Your task to perform on an android device: Search for panasonic triple a on amazon, select the first entry, and add it to the cart. Image 0: 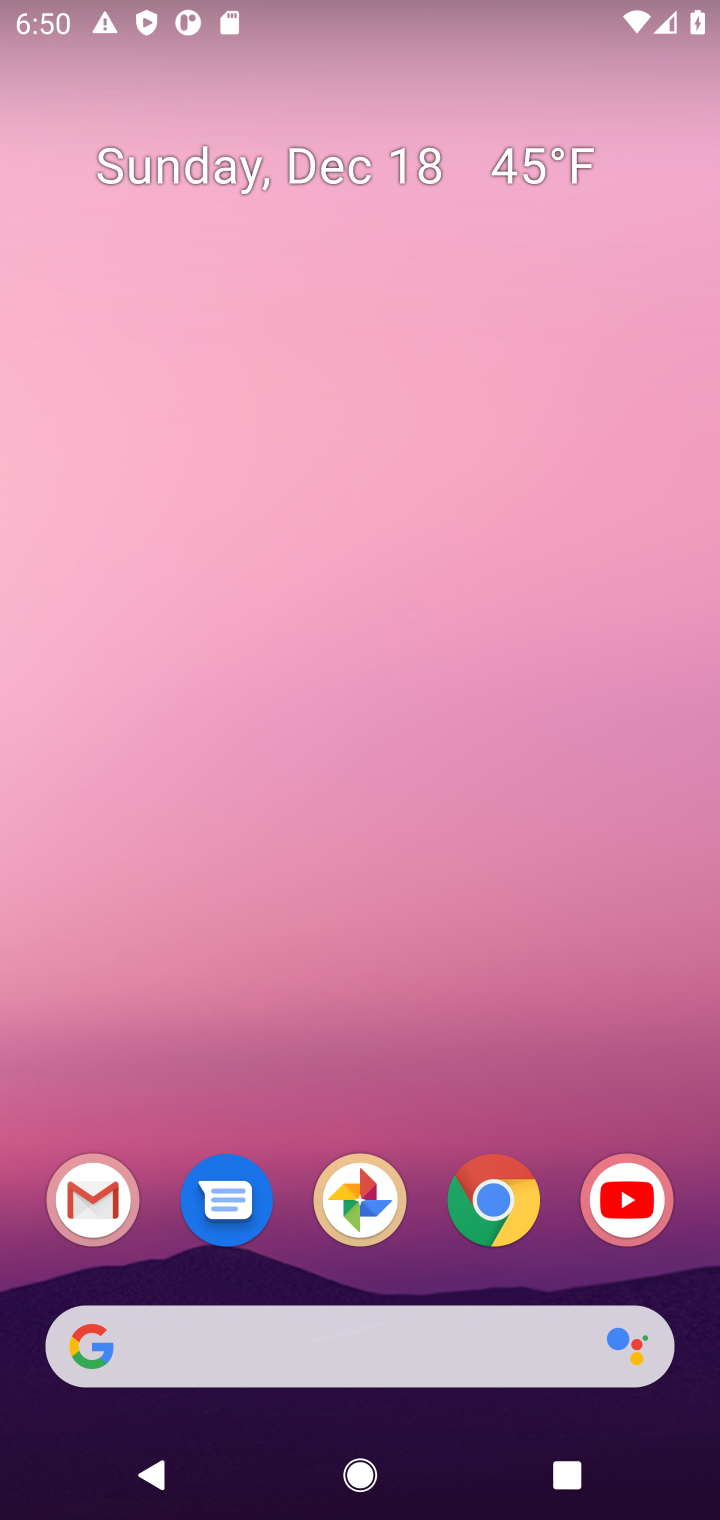
Step 0: click (503, 1210)
Your task to perform on an android device: Search for panasonic triple a on amazon, select the first entry, and add it to the cart. Image 1: 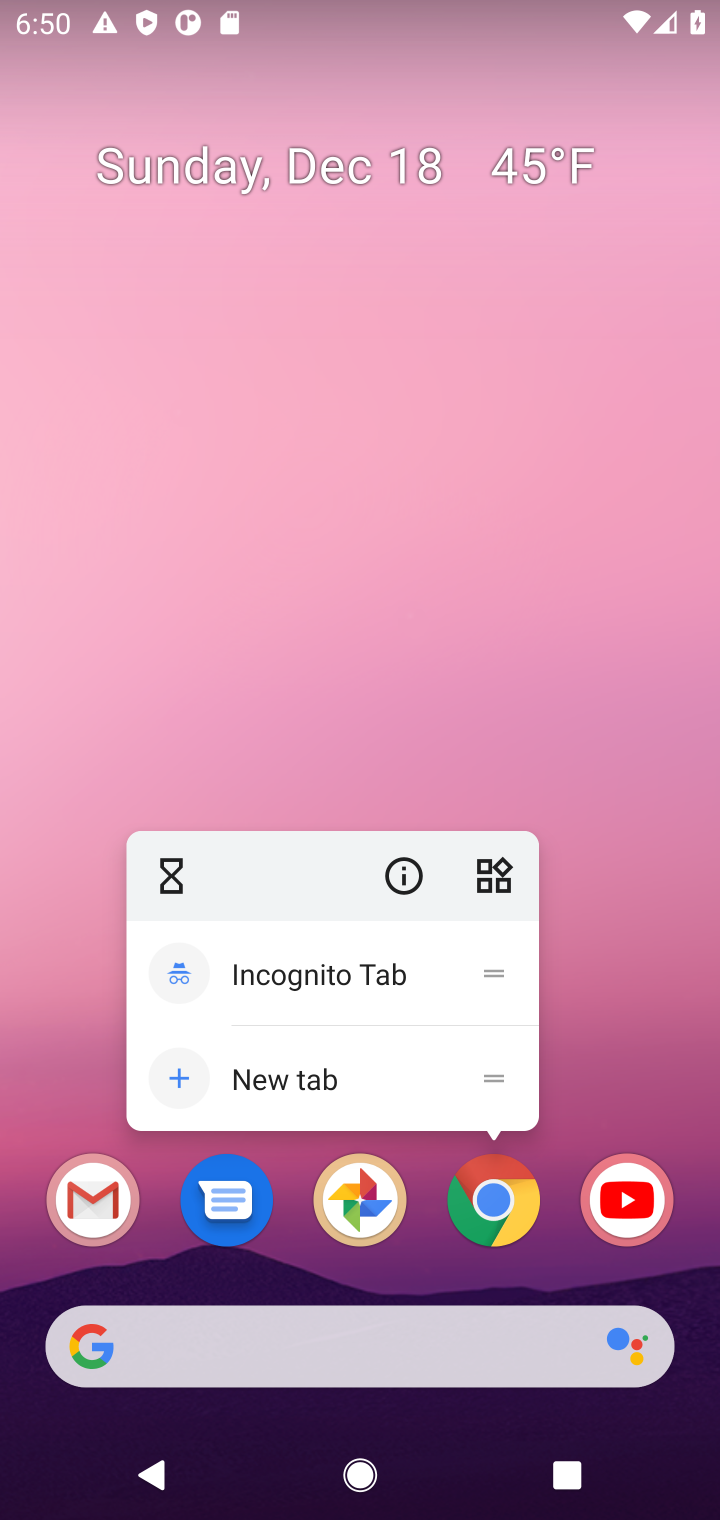
Step 1: click (486, 1216)
Your task to perform on an android device: Search for panasonic triple a on amazon, select the first entry, and add it to the cart. Image 2: 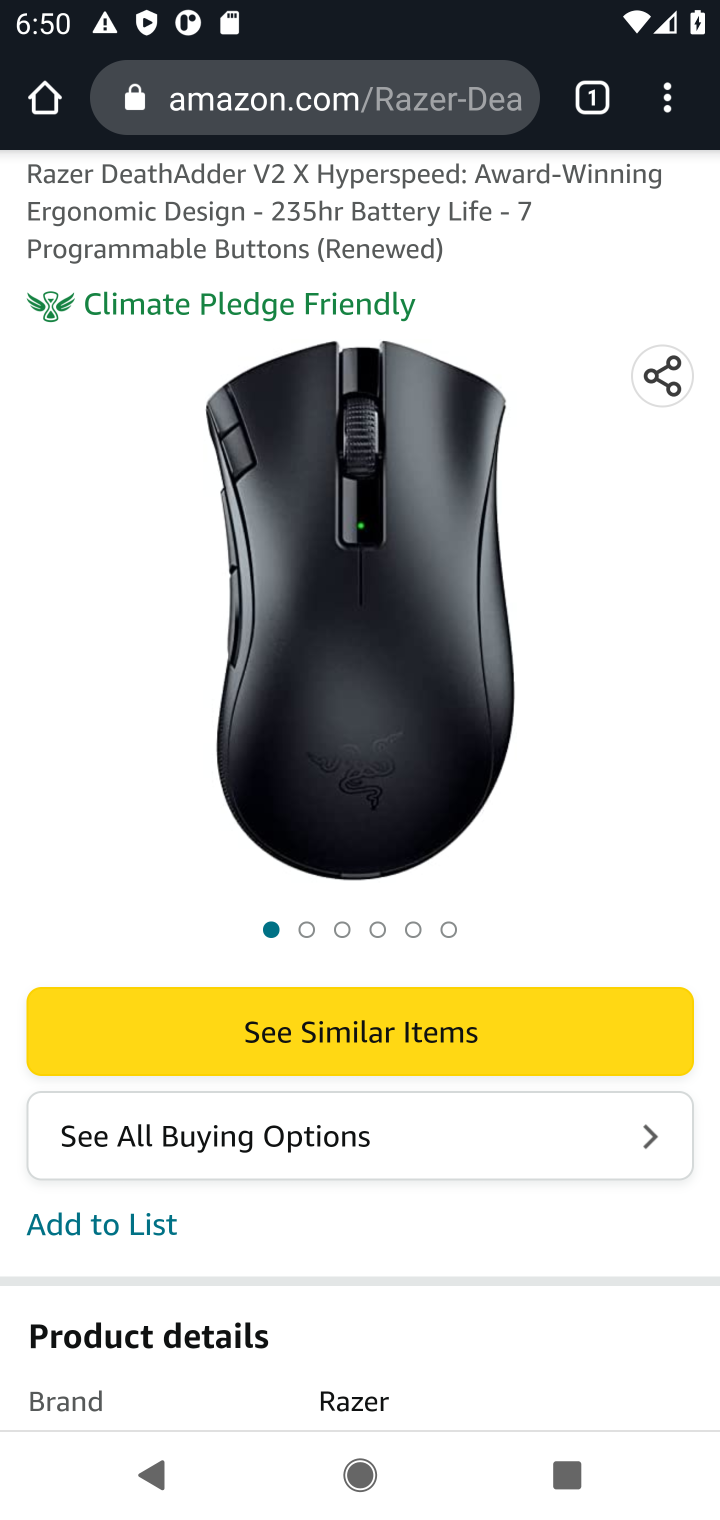
Step 2: drag from (489, 713) to (502, 1409)
Your task to perform on an android device: Search for panasonic triple a on amazon, select the first entry, and add it to the cart. Image 3: 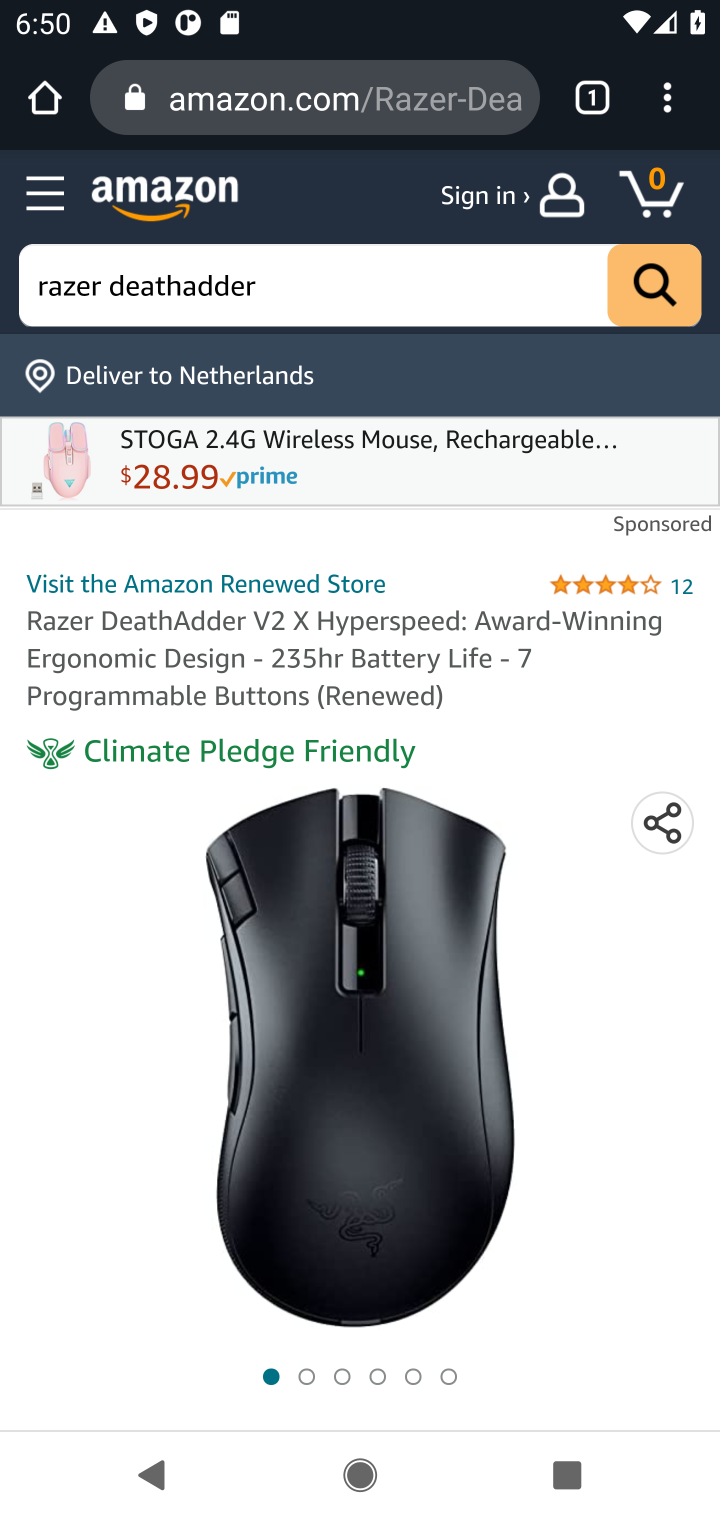
Step 3: click (233, 292)
Your task to perform on an android device: Search for panasonic triple a on amazon, select the first entry, and add it to the cart. Image 4: 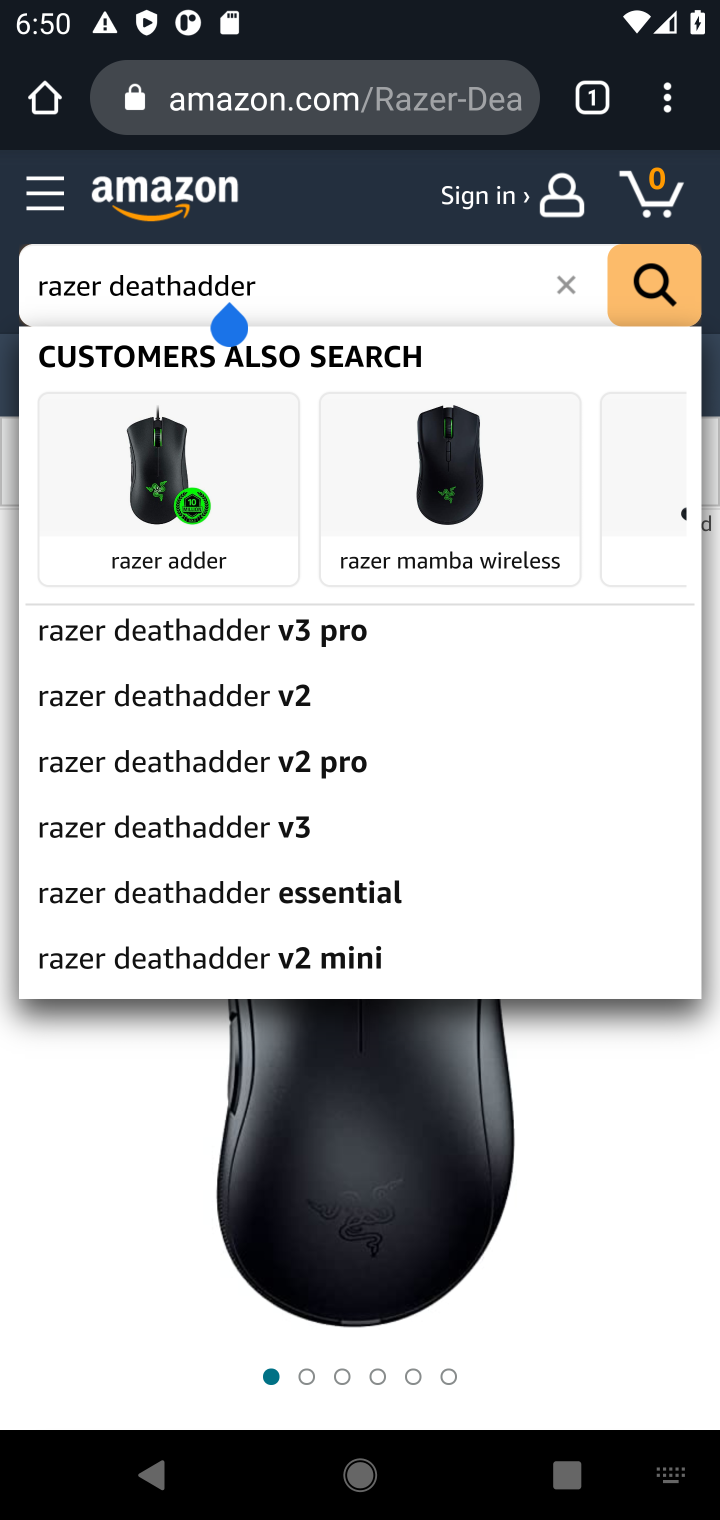
Step 4: click (572, 297)
Your task to perform on an android device: Search for panasonic triple a on amazon, select the first entry, and add it to the cart. Image 5: 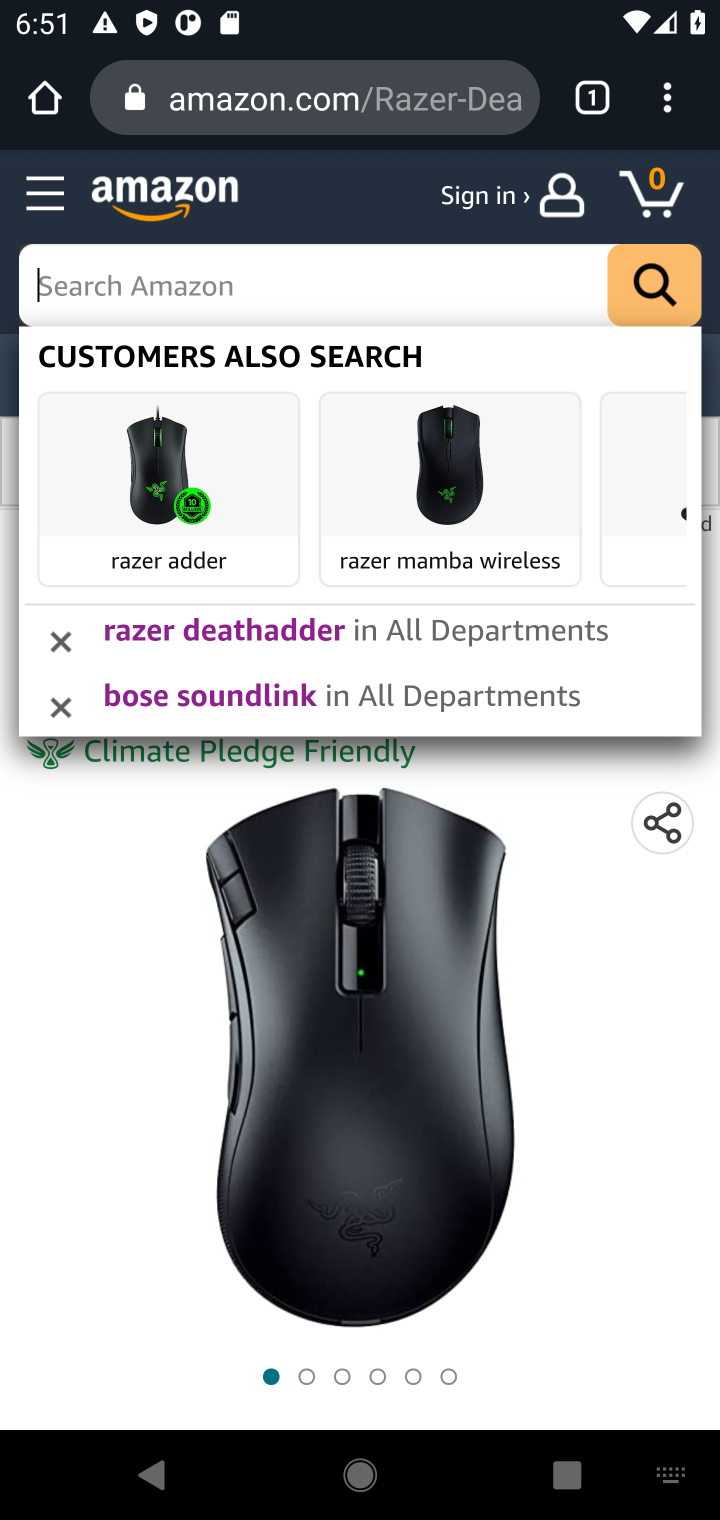
Step 5: type " panasonic triple a"
Your task to perform on an android device: Search for panasonic triple a on amazon, select the first entry, and add it to the cart. Image 6: 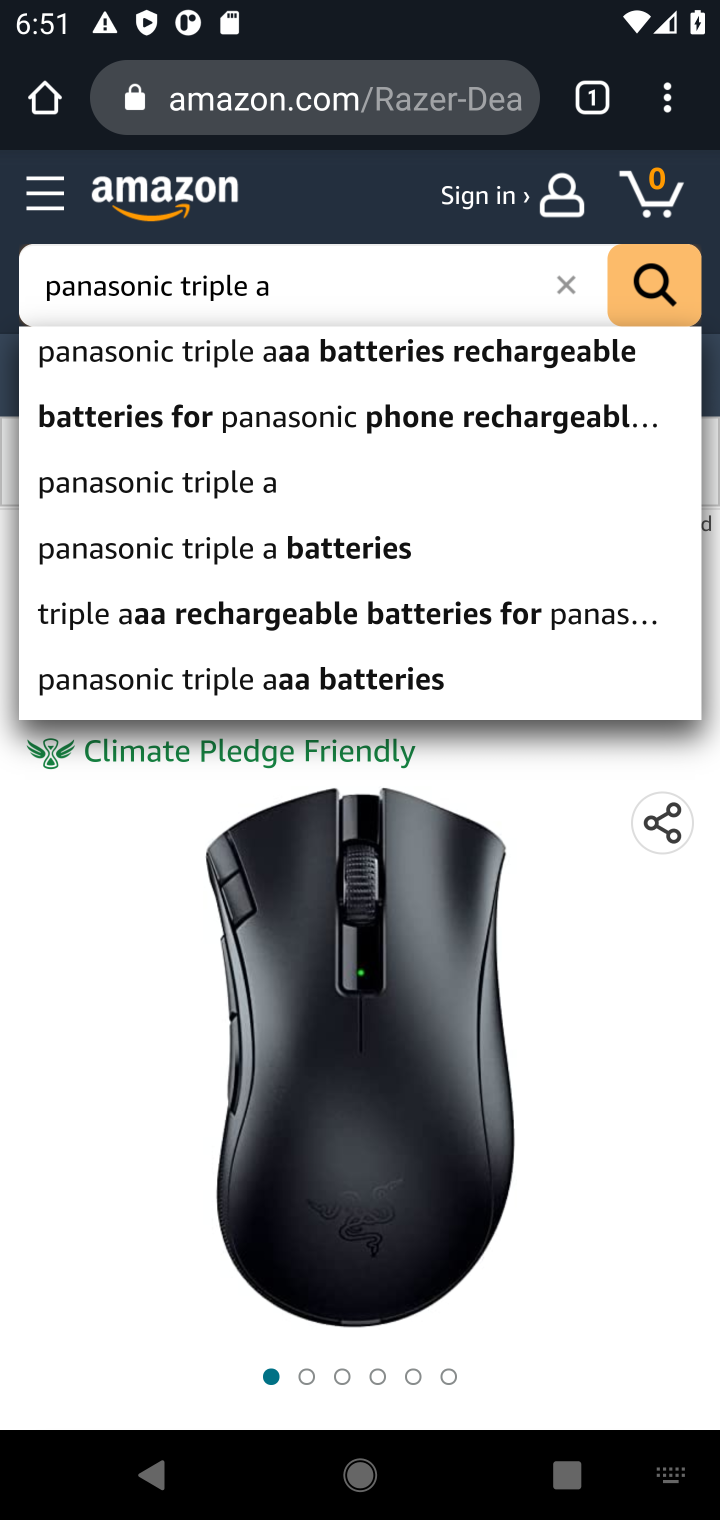
Step 6: click (183, 492)
Your task to perform on an android device: Search for panasonic triple a on amazon, select the first entry, and add it to the cart. Image 7: 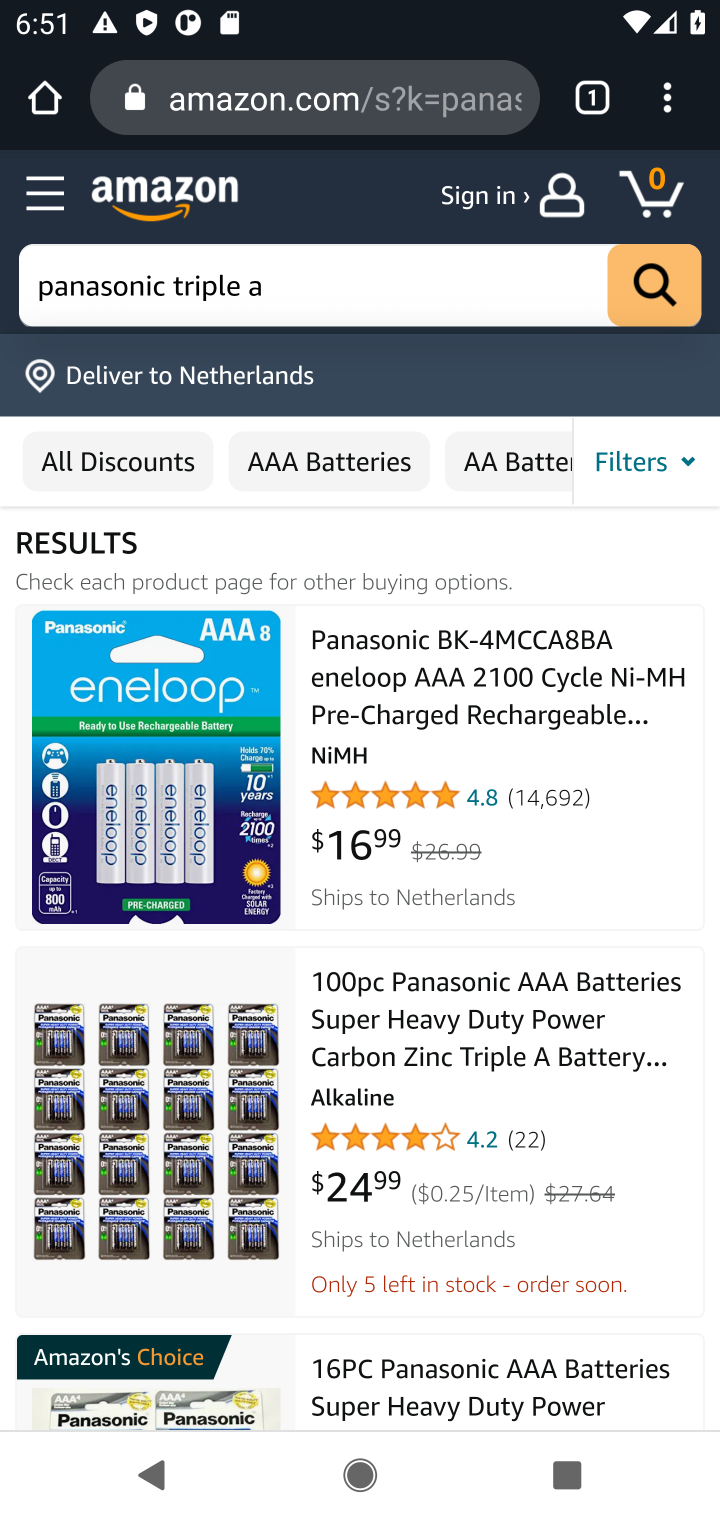
Step 7: click (479, 691)
Your task to perform on an android device: Search for panasonic triple a on amazon, select the first entry, and add it to the cart. Image 8: 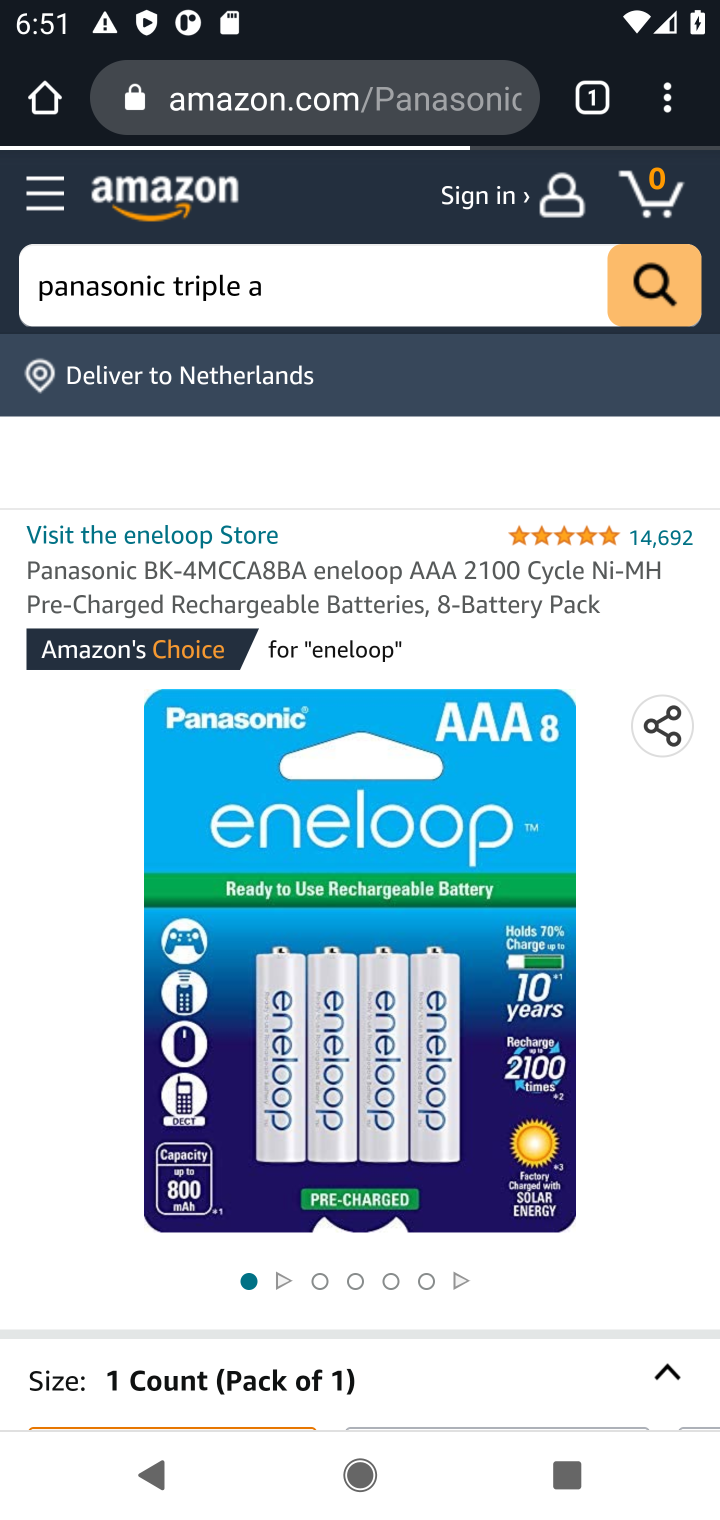
Step 8: drag from (411, 1002) to (476, 463)
Your task to perform on an android device: Search for panasonic triple a on amazon, select the first entry, and add it to the cart. Image 9: 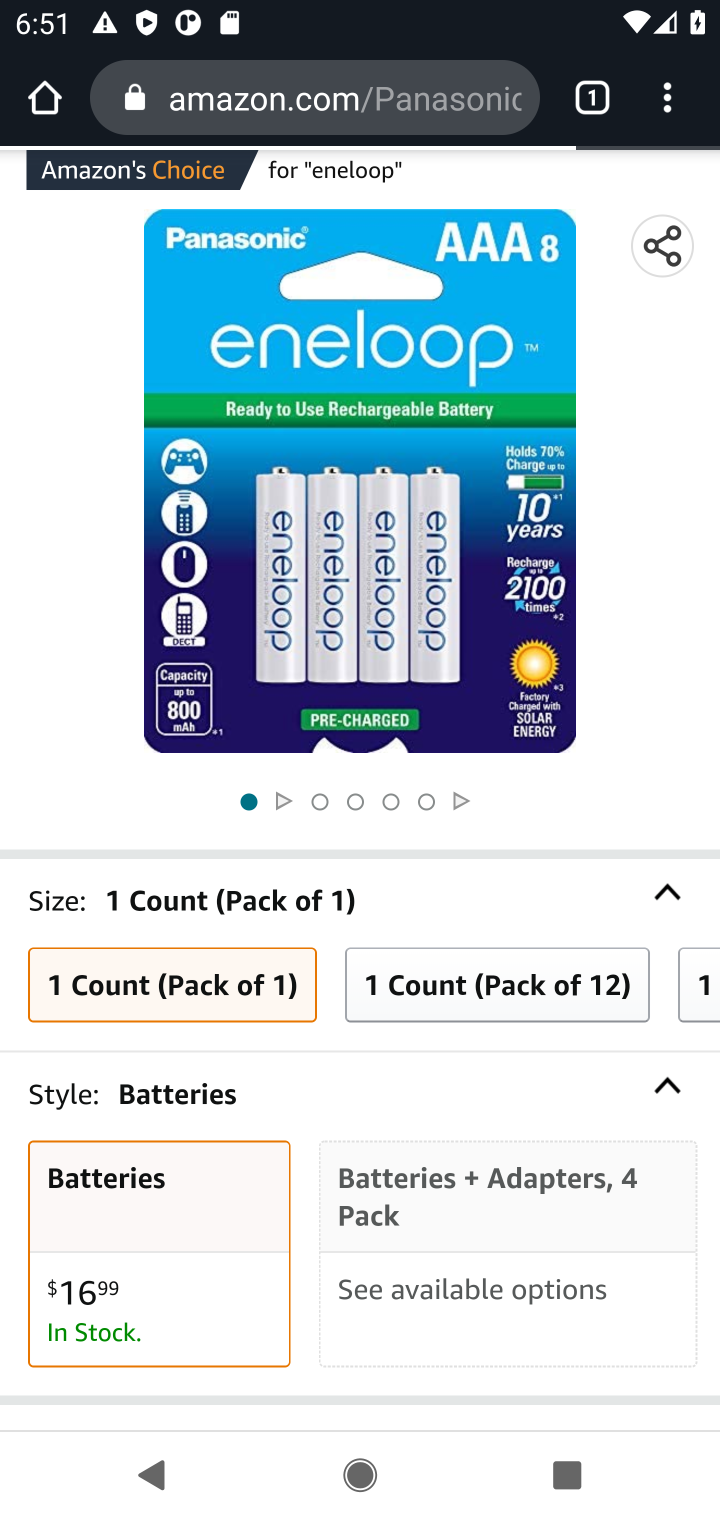
Step 9: drag from (436, 1020) to (442, 411)
Your task to perform on an android device: Search for panasonic triple a on amazon, select the first entry, and add it to the cart. Image 10: 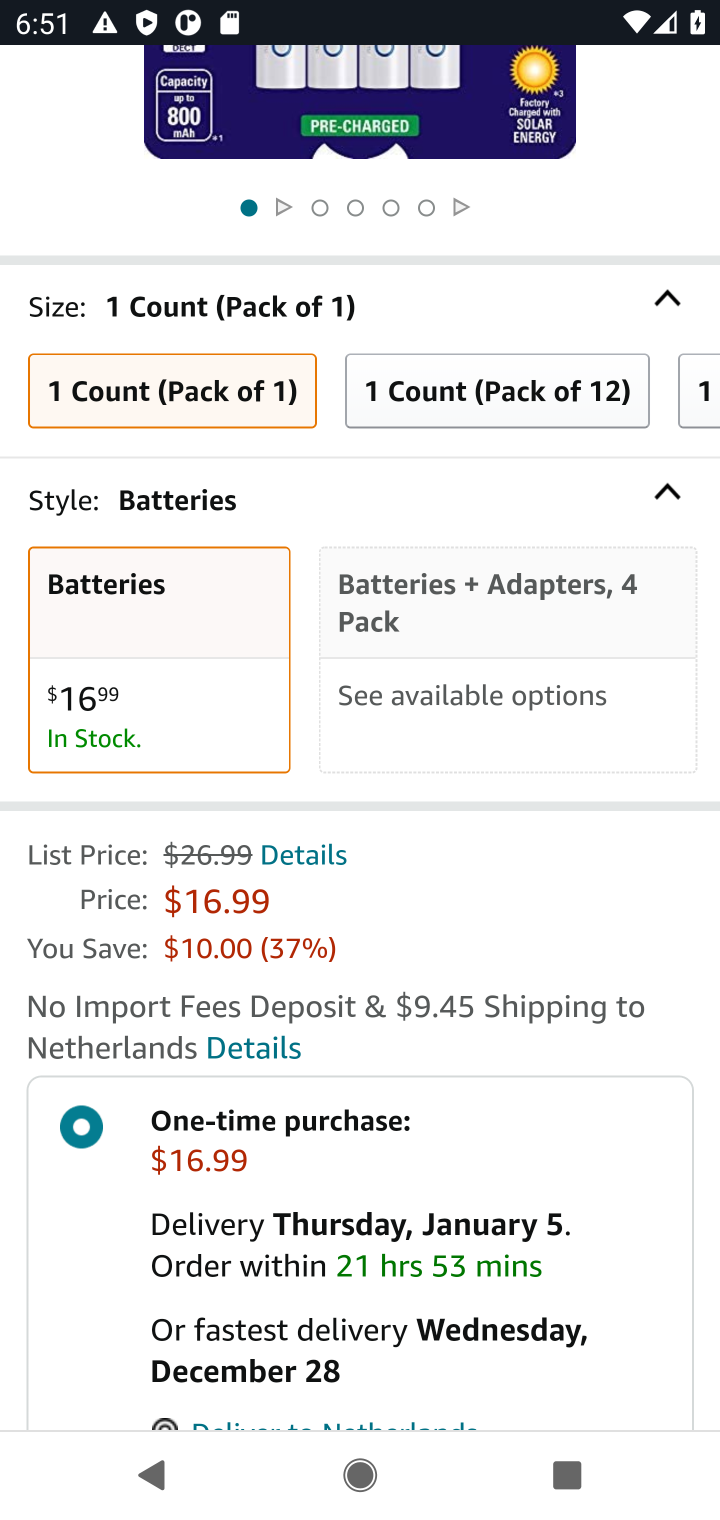
Step 10: drag from (280, 1100) to (348, 350)
Your task to perform on an android device: Search for panasonic triple a on amazon, select the first entry, and add it to the cart. Image 11: 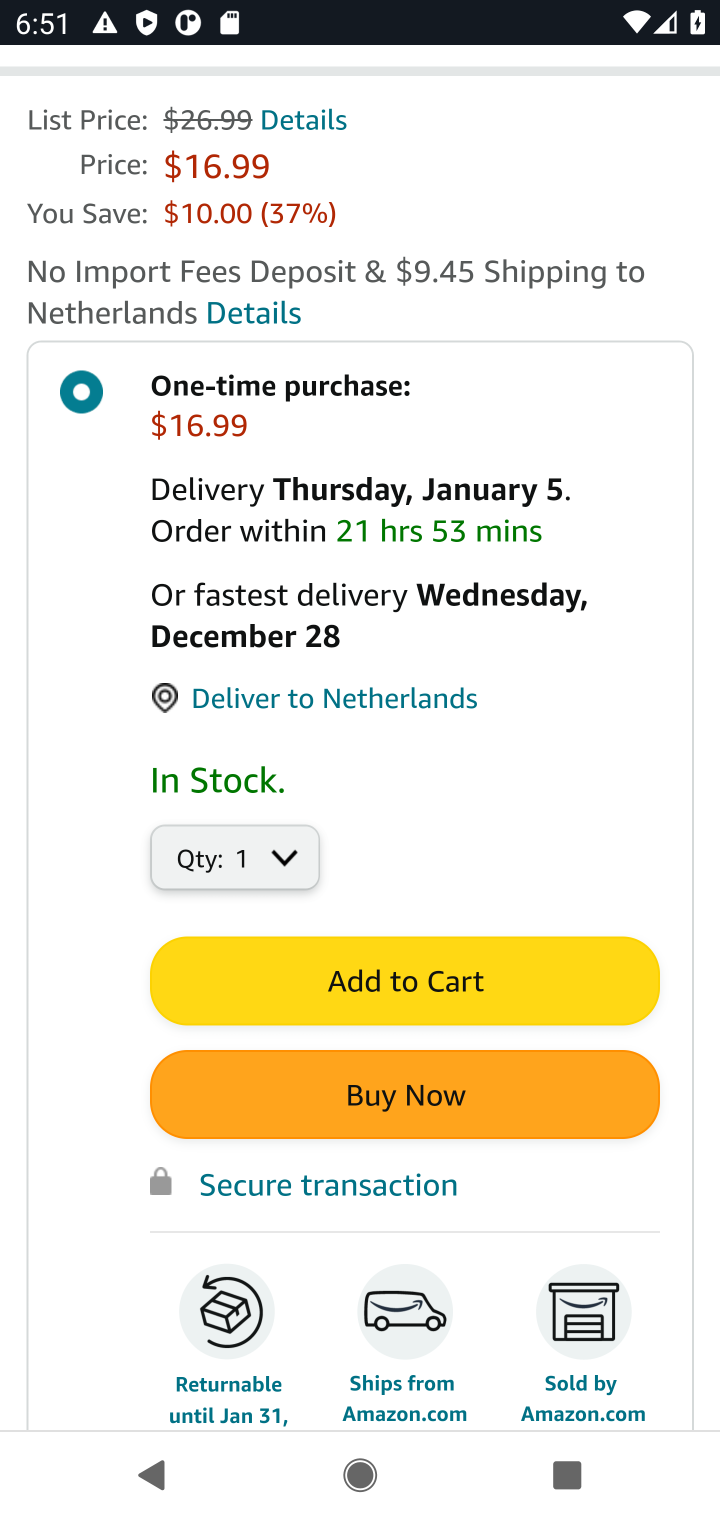
Step 11: click (416, 984)
Your task to perform on an android device: Search for panasonic triple a on amazon, select the first entry, and add it to the cart. Image 12: 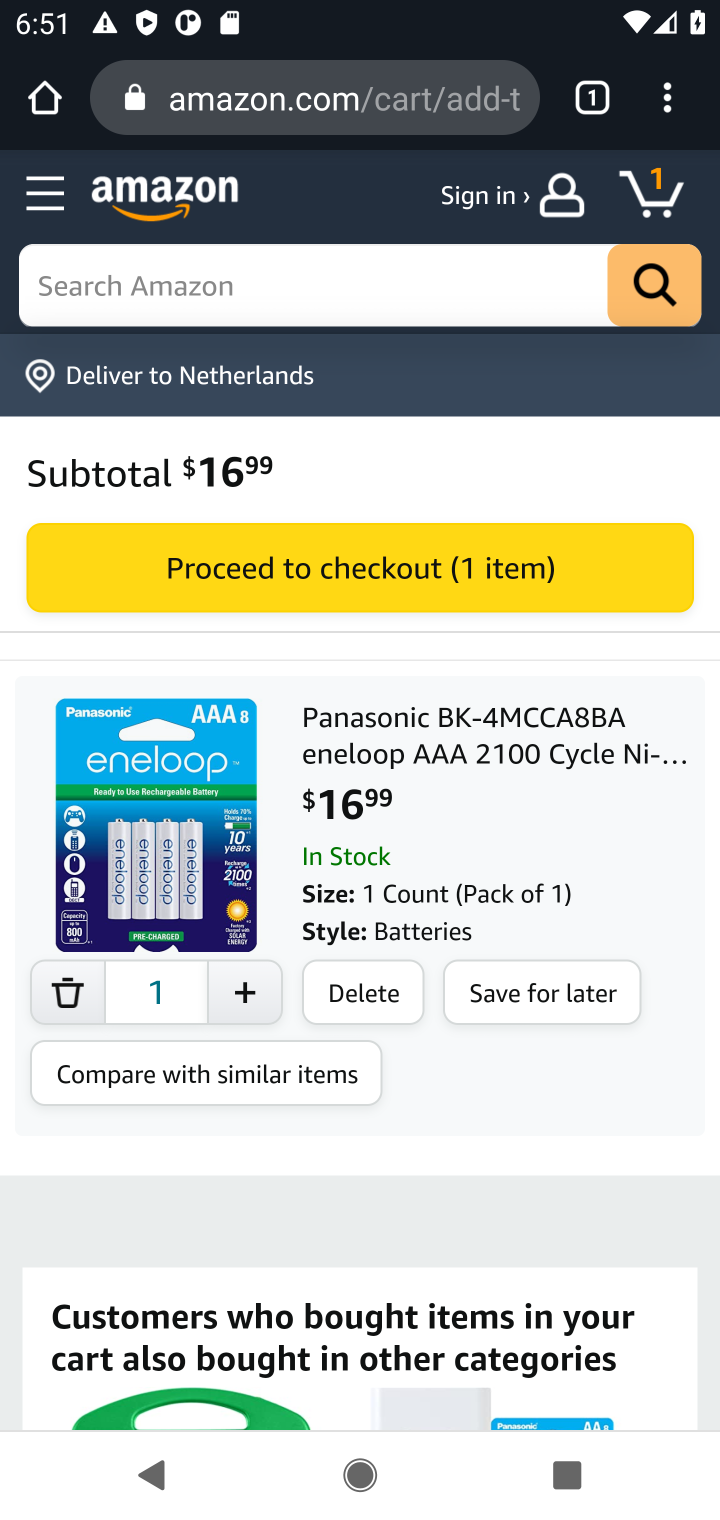
Step 12: task complete